Your task to perform on an android device: change notifications settings Image 0: 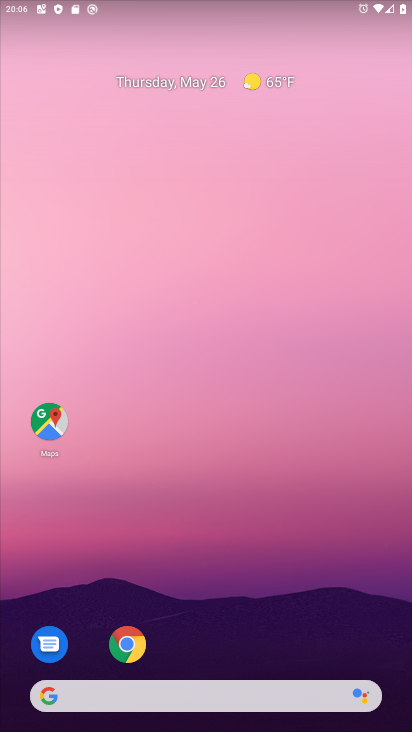
Step 0: drag from (174, 650) to (201, 240)
Your task to perform on an android device: change notifications settings Image 1: 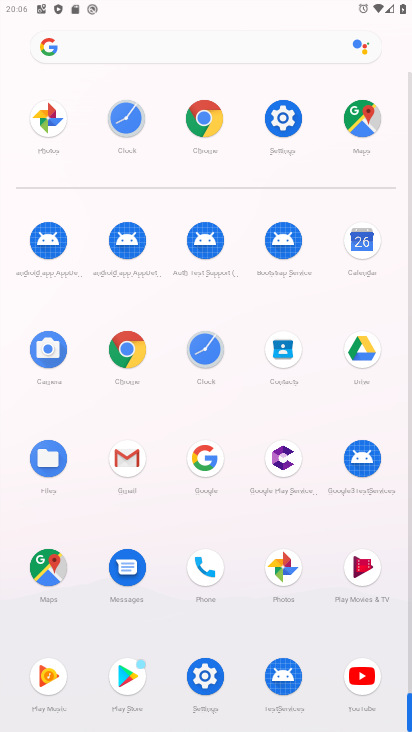
Step 1: click (279, 121)
Your task to perform on an android device: change notifications settings Image 2: 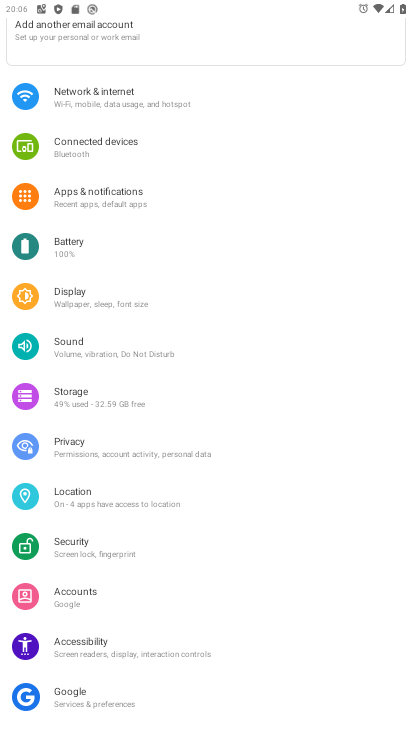
Step 2: drag from (203, 636) to (233, 358)
Your task to perform on an android device: change notifications settings Image 3: 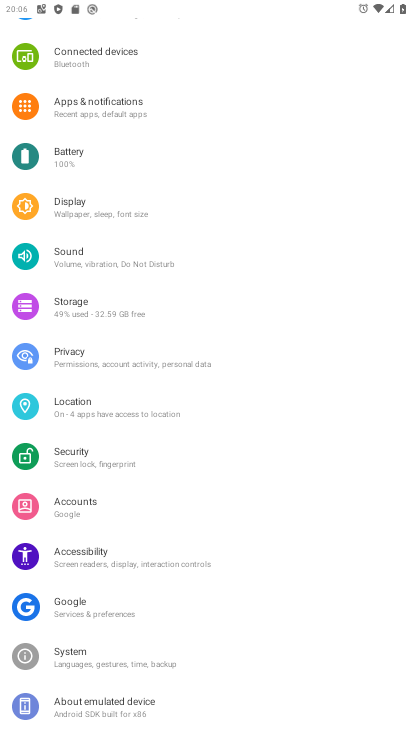
Step 3: click (105, 107)
Your task to perform on an android device: change notifications settings Image 4: 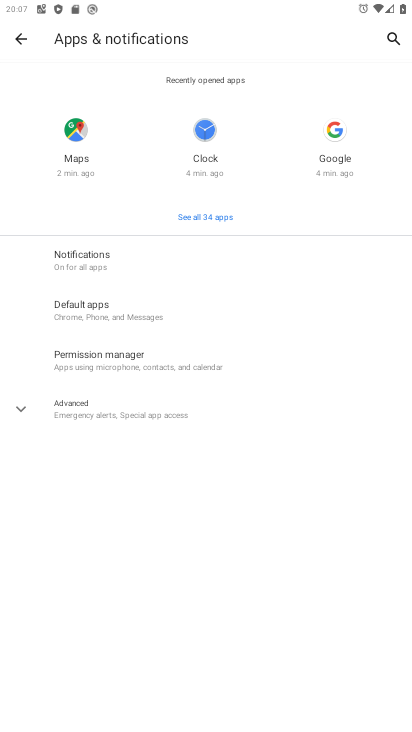
Step 4: click (165, 260)
Your task to perform on an android device: change notifications settings Image 5: 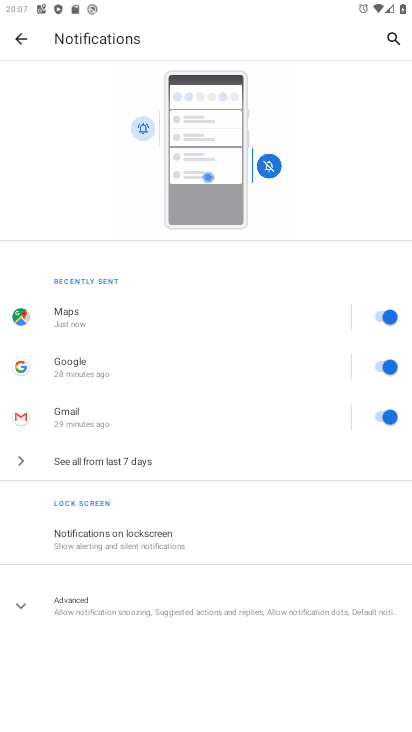
Step 5: drag from (251, 563) to (279, 392)
Your task to perform on an android device: change notifications settings Image 6: 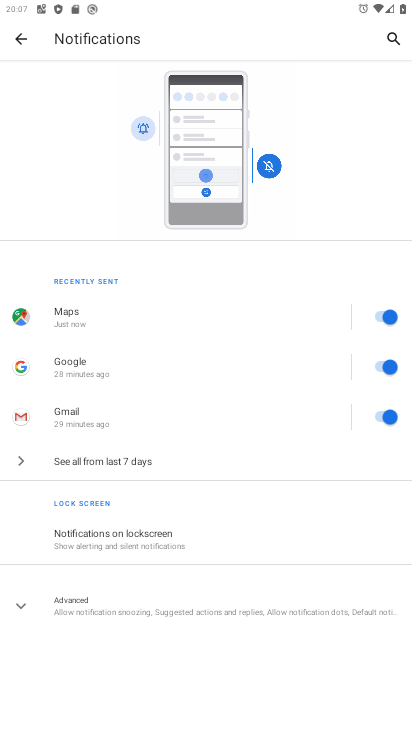
Step 6: click (81, 608)
Your task to perform on an android device: change notifications settings Image 7: 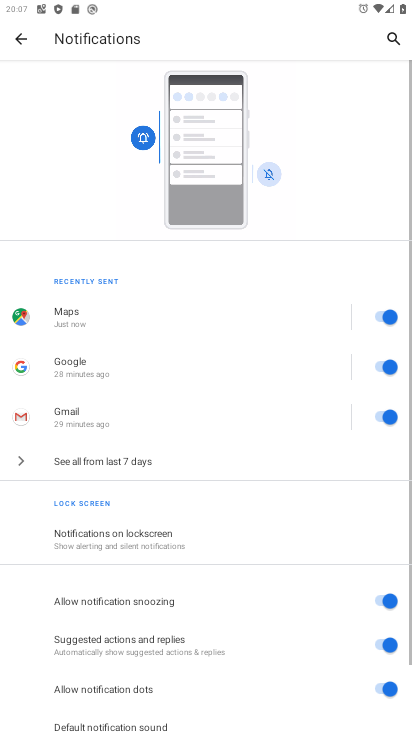
Step 7: task complete